Your task to perform on an android device: open chrome and create a bookmark for the current page Image 0: 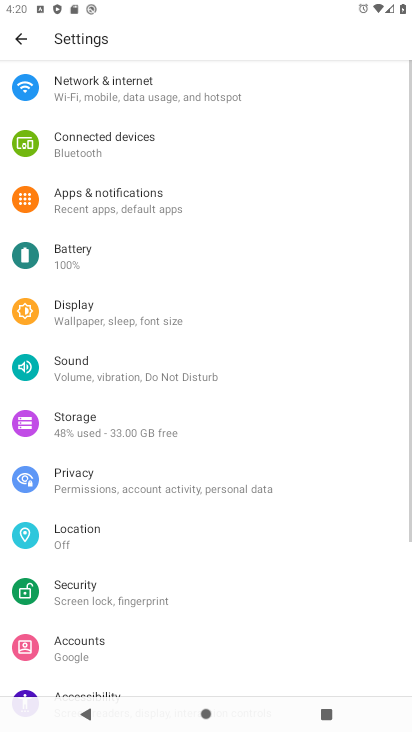
Step 0: press home button
Your task to perform on an android device: open chrome and create a bookmark for the current page Image 1: 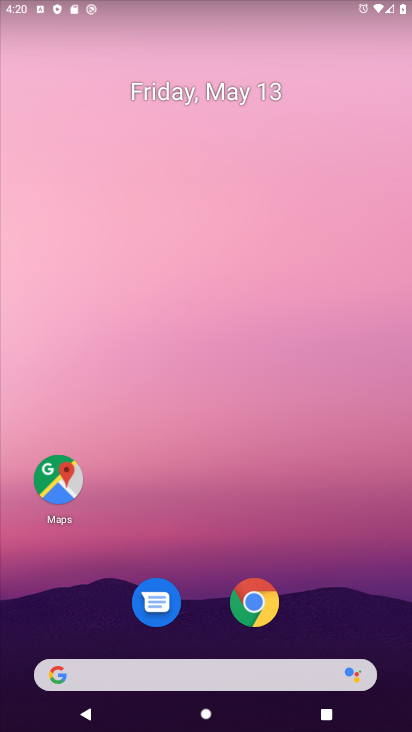
Step 1: click (256, 594)
Your task to perform on an android device: open chrome and create a bookmark for the current page Image 2: 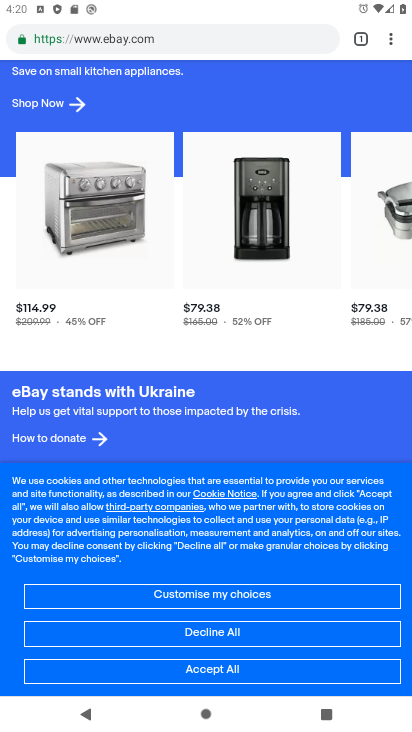
Step 2: click (385, 39)
Your task to perform on an android device: open chrome and create a bookmark for the current page Image 3: 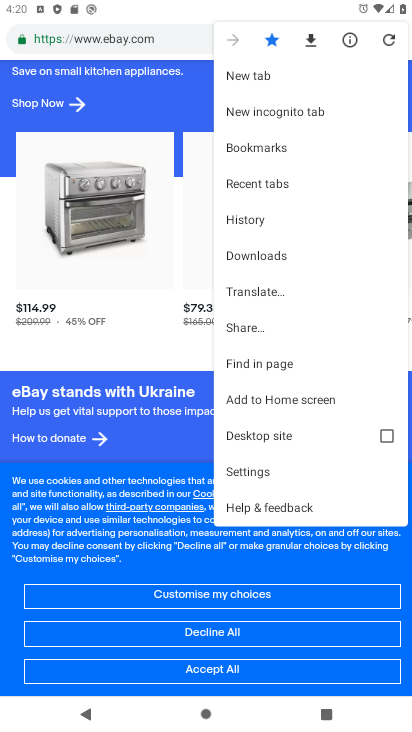
Step 3: click (273, 40)
Your task to perform on an android device: open chrome and create a bookmark for the current page Image 4: 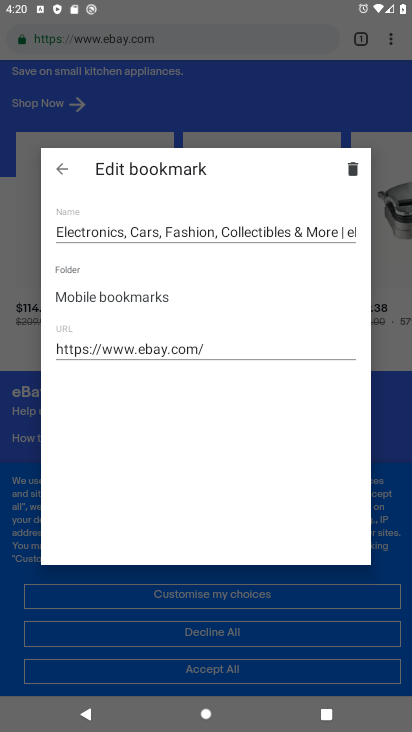
Step 4: click (347, 164)
Your task to perform on an android device: open chrome and create a bookmark for the current page Image 5: 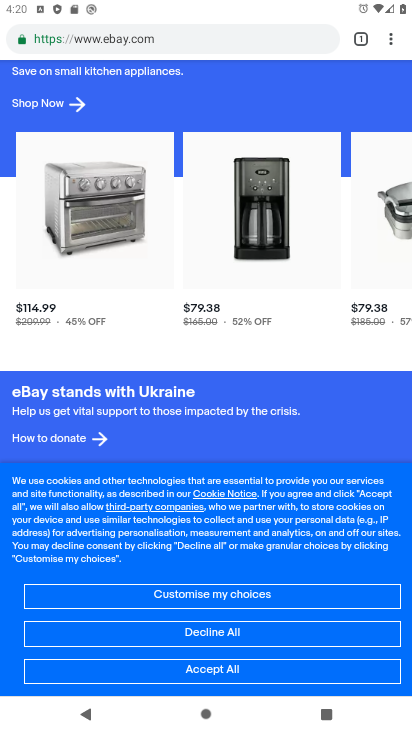
Step 5: click (392, 43)
Your task to perform on an android device: open chrome and create a bookmark for the current page Image 6: 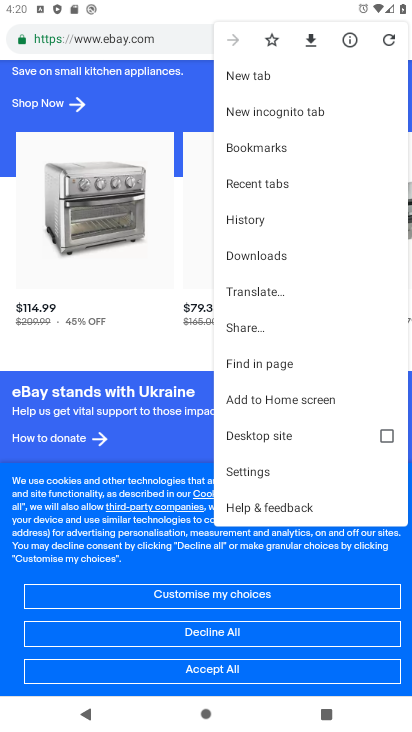
Step 6: click (268, 33)
Your task to perform on an android device: open chrome and create a bookmark for the current page Image 7: 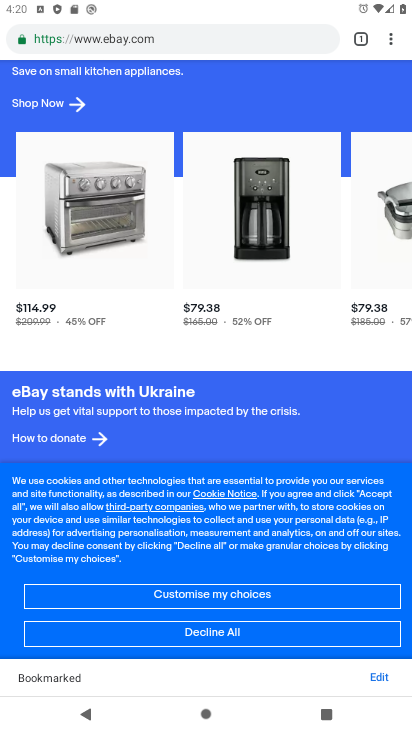
Step 7: task complete